Your task to perform on an android device: toggle wifi Image 0: 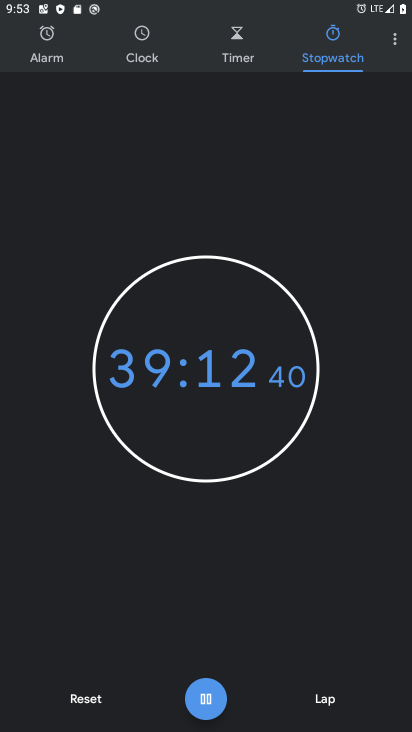
Step 0: press home button
Your task to perform on an android device: toggle wifi Image 1: 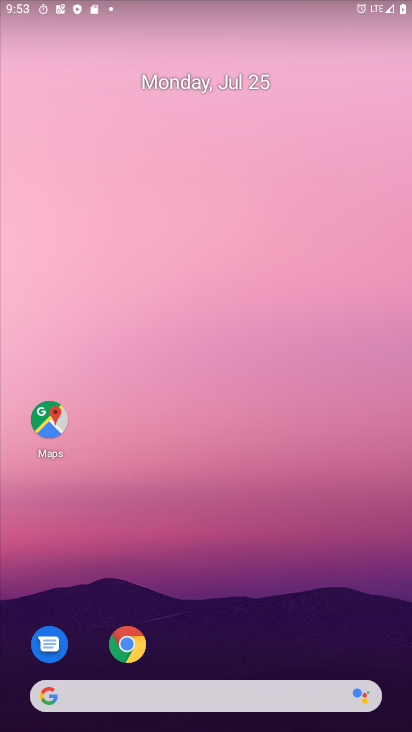
Step 1: drag from (258, 572) to (243, 136)
Your task to perform on an android device: toggle wifi Image 2: 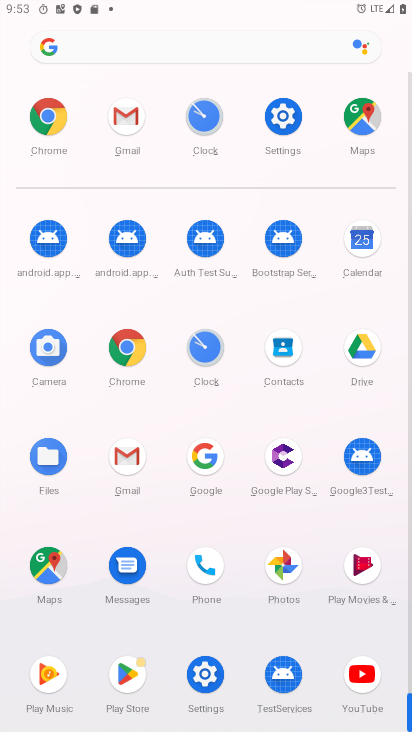
Step 2: click (282, 133)
Your task to perform on an android device: toggle wifi Image 3: 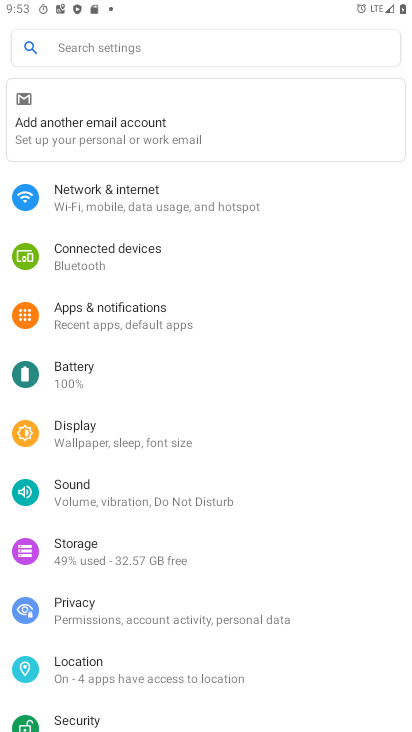
Step 3: click (209, 217)
Your task to perform on an android device: toggle wifi Image 4: 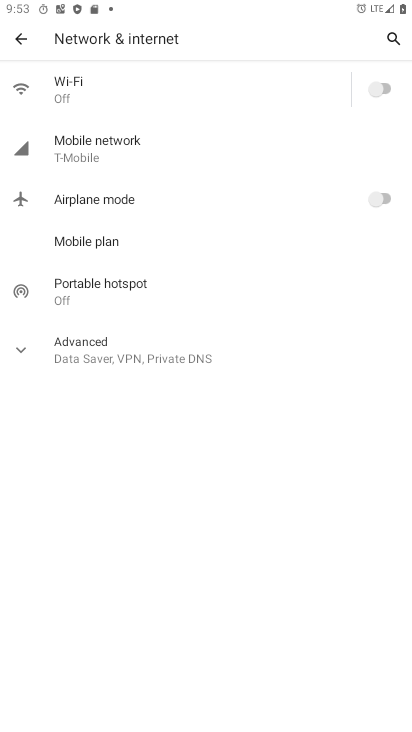
Step 4: click (162, 94)
Your task to perform on an android device: toggle wifi Image 5: 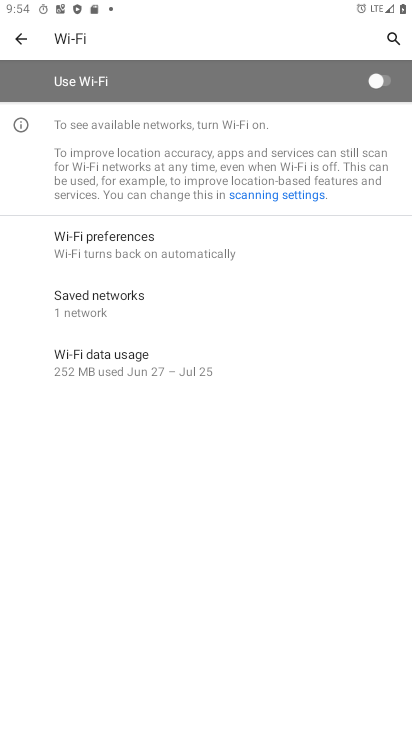
Step 5: click (377, 78)
Your task to perform on an android device: toggle wifi Image 6: 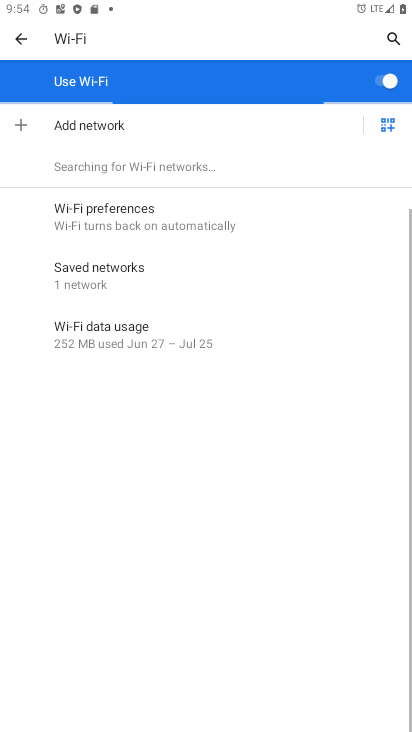
Step 6: task complete